Your task to perform on an android device: remove spam from my inbox in the gmail app Image 0: 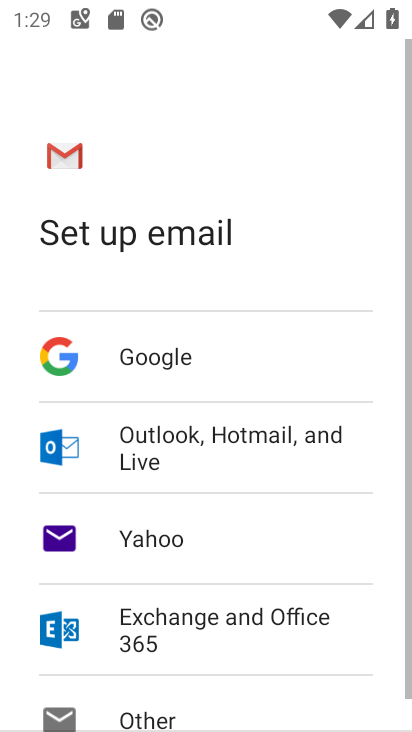
Step 0: press home button
Your task to perform on an android device: remove spam from my inbox in the gmail app Image 1: 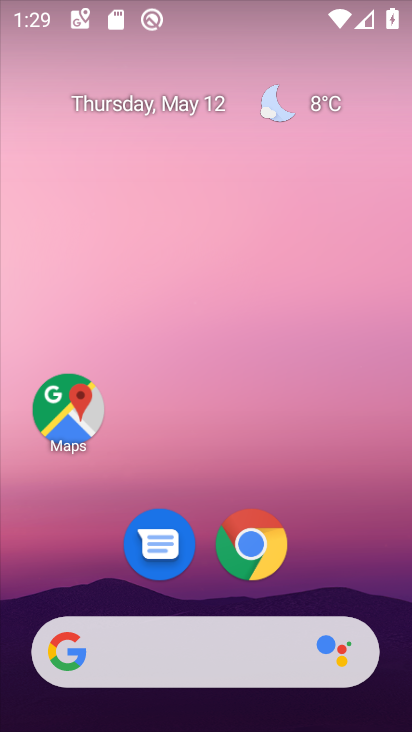
Step 1: drag from (201, 556) to (224, 209)
Your task to perform on an android device: remove spam from my inbox in the gmail app Image 2: 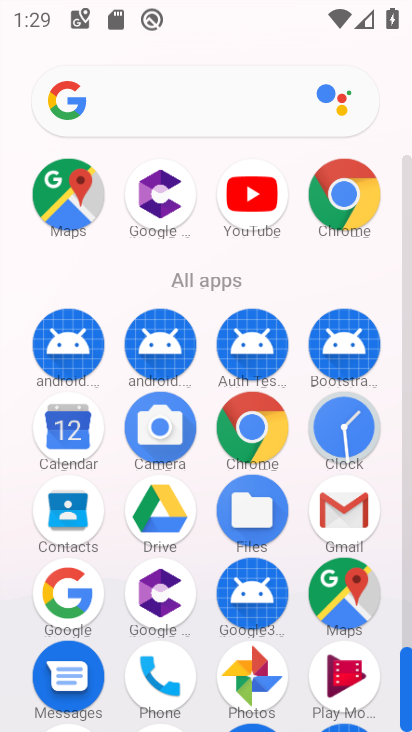
Step 2: click (343, 508)
Your task to perform on an android device: remove spam from my inbox in the gmail app Image 3: 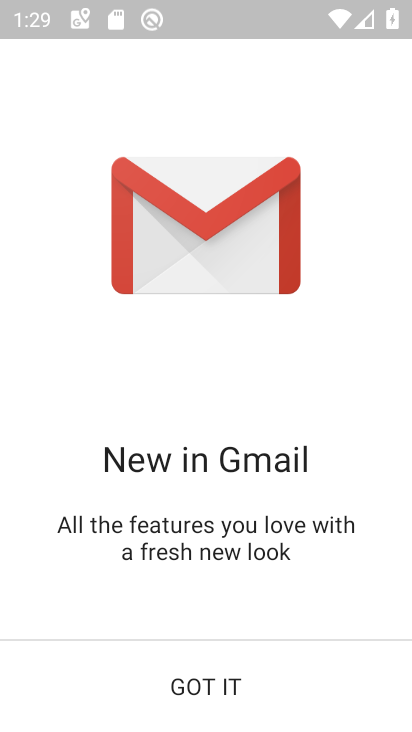
Step 3: click (208, 690)
Your task to perform on an android device: remove spam from my inbox in the gmail app Image 4: 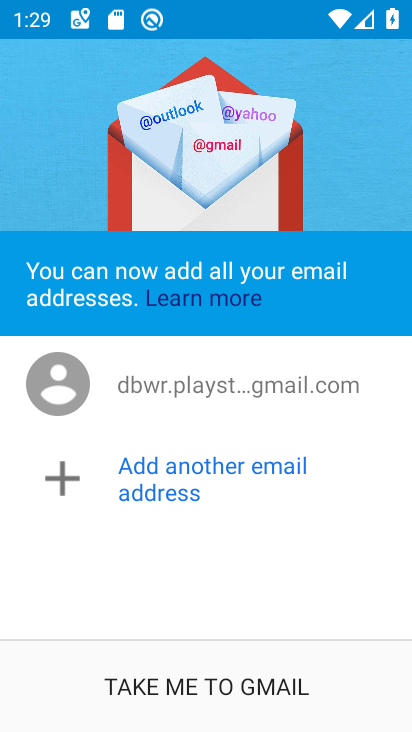
Step 4: click (208, 690)
Your task to perform on an android device: remove spam from my inbox in the gmail app Image 5: 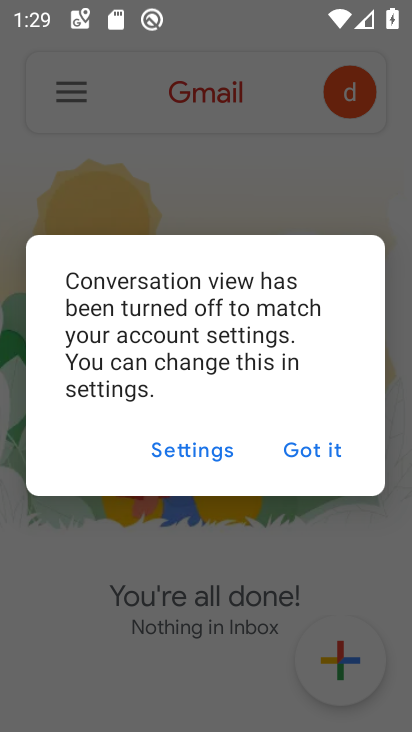
Step 5: click (324, 452)
Your task to perform on an android device: remove spam from my inbox in the gmail app Image 6: 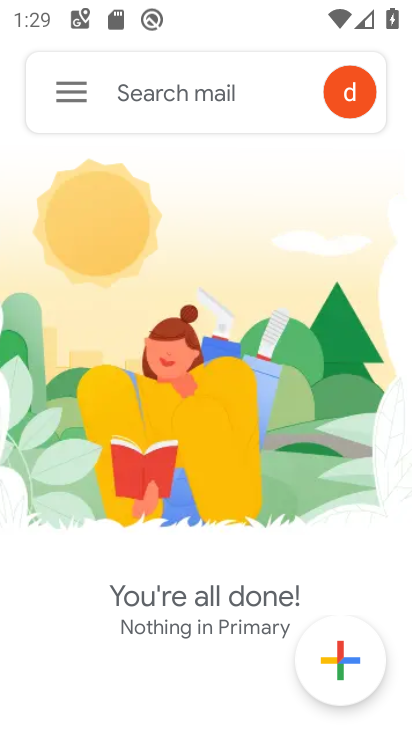
Step 6: click (70, 98)
Your task to perform on an android device: remove spam from my inbox in the gmail app Image 7: 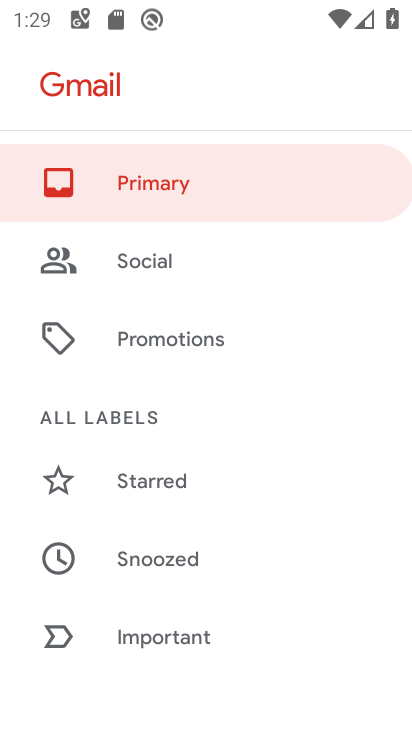
Step 7: drag from (148, 567) to (172, 266)
Your task to perform on an android device: remove spam from my inbox in the gmail app Image 8: 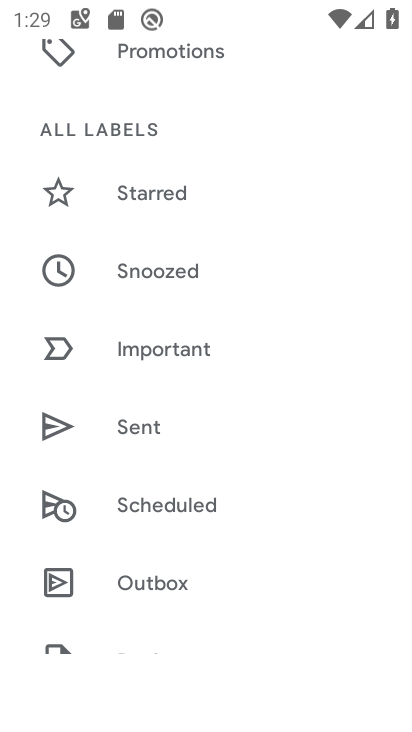
Step 8: drag from (149, 536) to (183, 319)
Your task to perform on an android device: remove spam from my inbox in the gmail app Image 9: 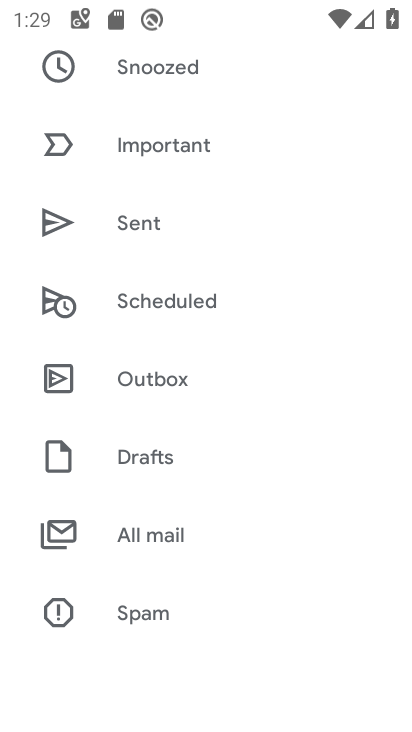
Step 9: click (146, 606)
Your task to perform on an android device: remove spam from my inbox in the gmail app Image 10: 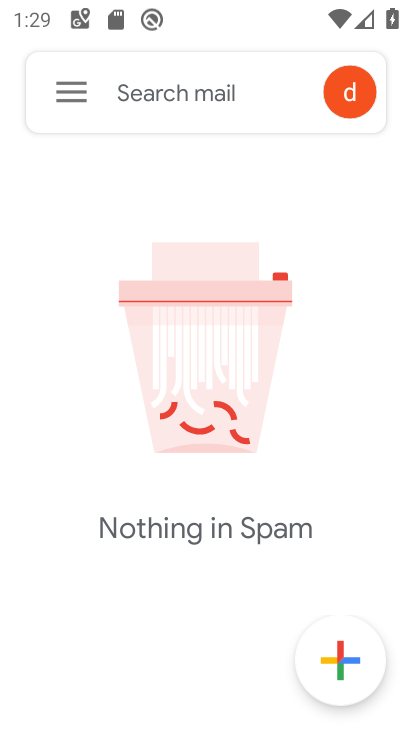
Step 10: task complete